Your task to perform on an android device: see creations saved in the google photos Image 0: 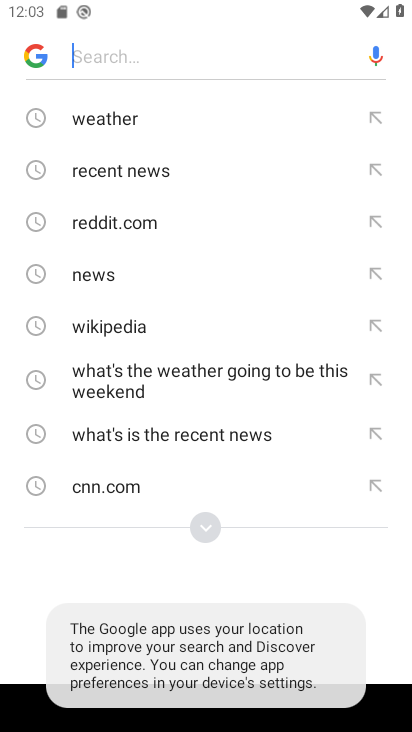
Step 0: press home button
Your task to perform on an android device: see creations saved in the google photos Image 1: 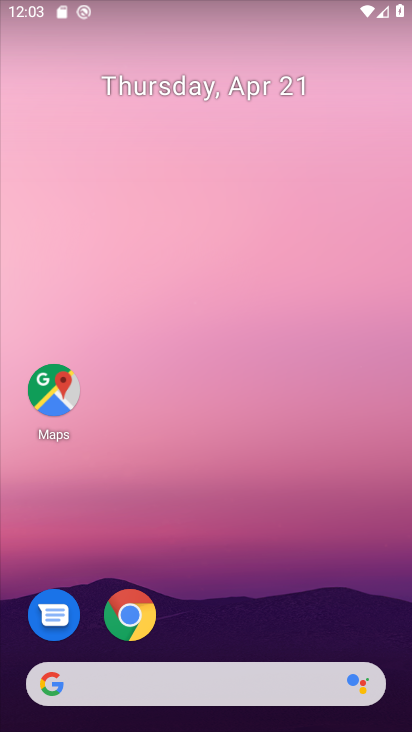
Step 1: drag from (374, 560) to (342, 96)
Your task to perform on an android device: see creations saved in the google photos Image 2: 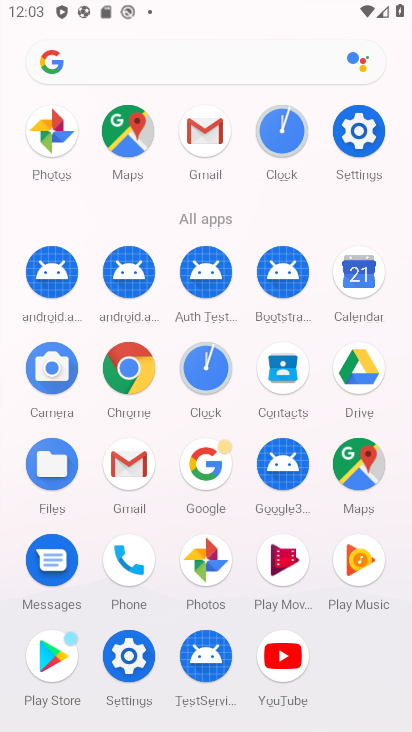
Step 2: click (191, 571)
Your task to perform on an android device: see creations saved in the google photos Image 3: 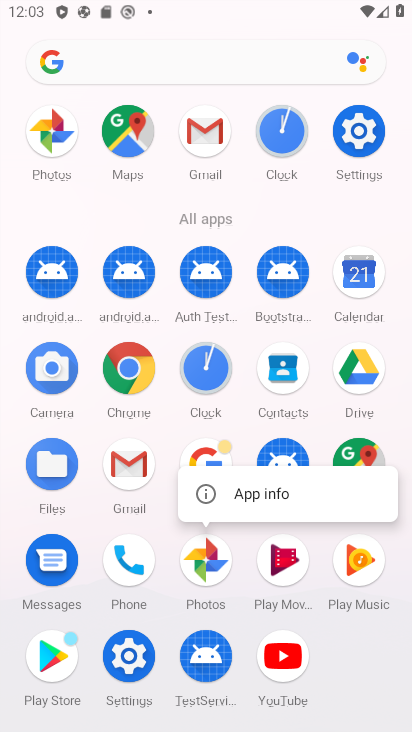
Step 3: click (215, 561)
Your task to perform on an android device: see creations saved in the google photos Image 4: 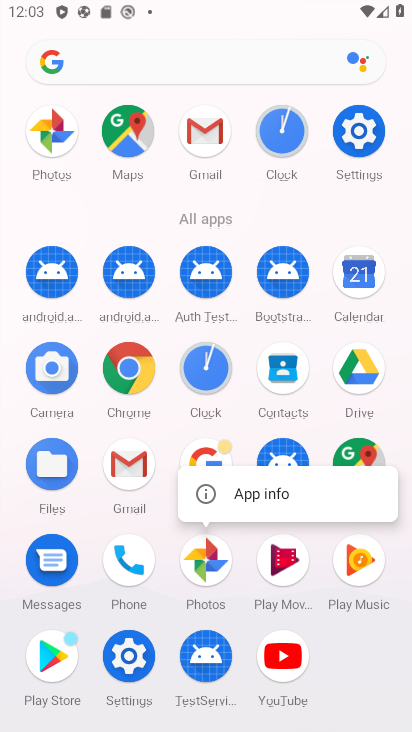
Step 4: click (215, 558)
Your task to perform on an android device: see creations saved in the google photos Image 5: 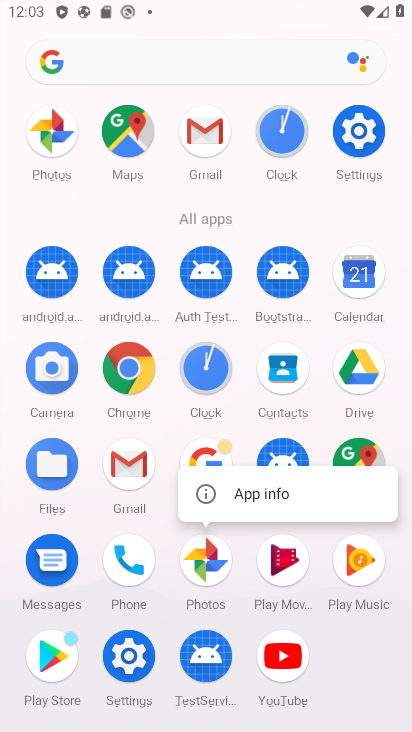
Step 5: click (215, 558)
Your task to perform on an android device: see creations saved in the google photos Image 6: 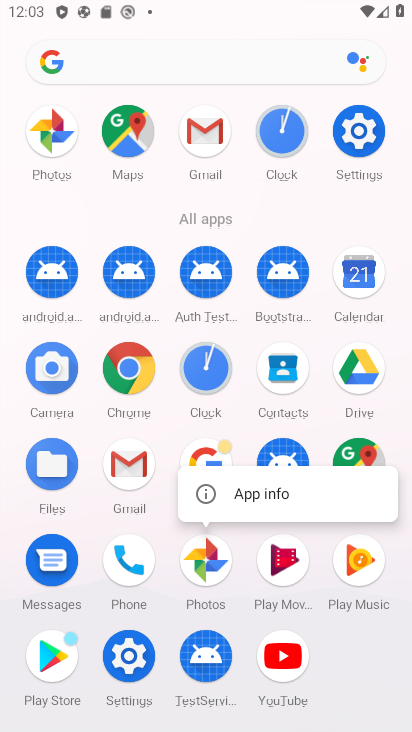
Step 6: click (206, 572)
Your task to perform on an android device: see creations saved in the google photos Image 7: 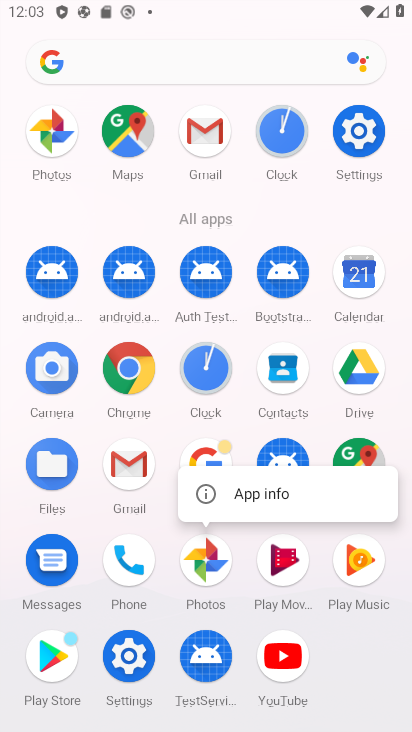
Step 7: click (211, 540)
Your task to perform on an android device: see creations saved in the google photos Image 8: 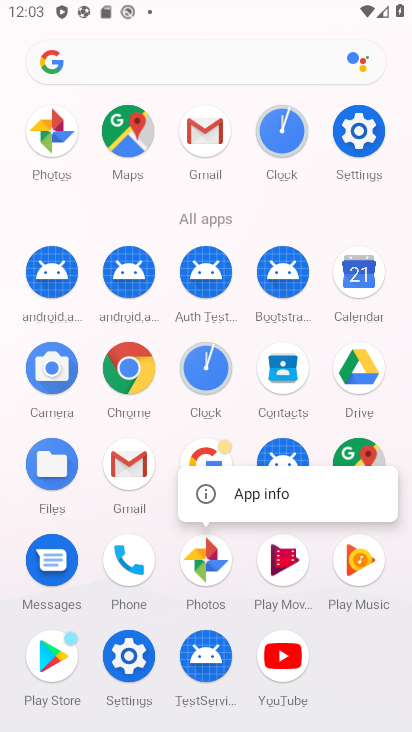
Step 8: click (199, 562)
Your task to perform on an android device: see creations saved in the google photos Image 9: 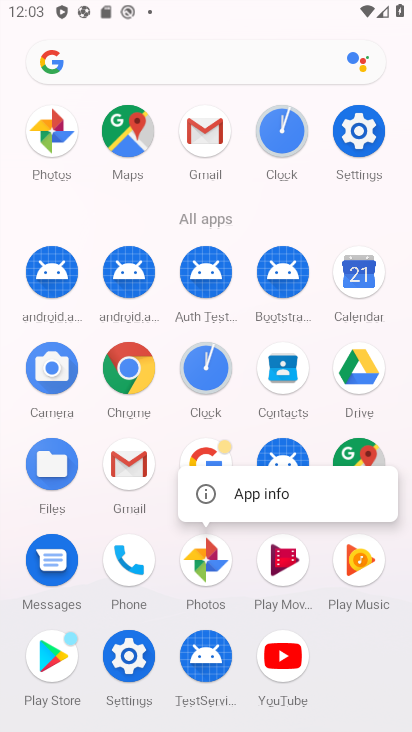
Step 9: click (205, 577)
Your task to perform on an android device: see creations saved in the google photos Image 10: 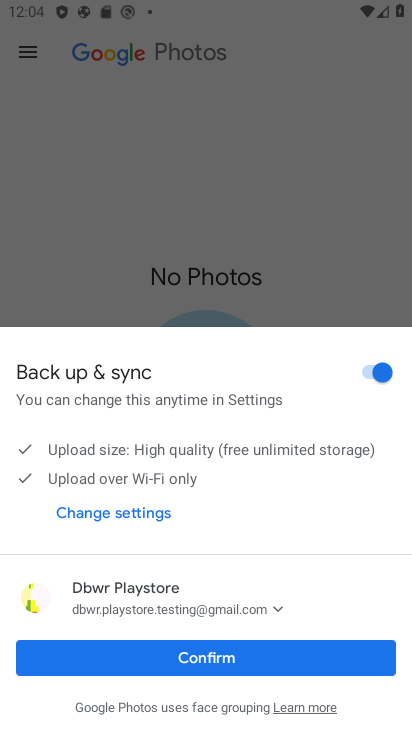
Step 10: click (197, 663)
Your task to perform on an android device: see creations saved in the google photos Image 11: 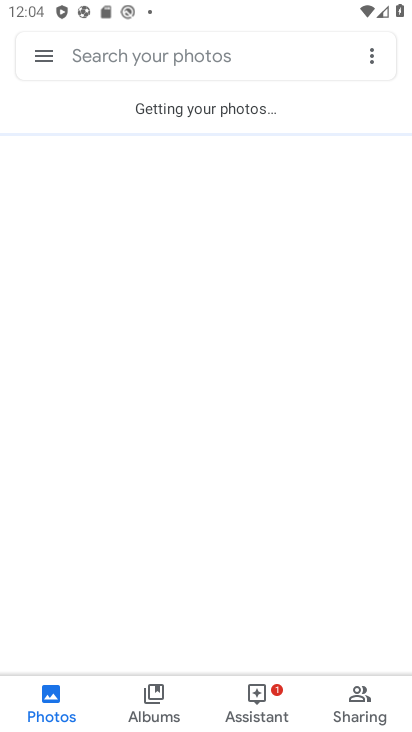
Step 11: click (123, 54)
Your task to perform on an android device: see creations saved in the google photos Image 12: 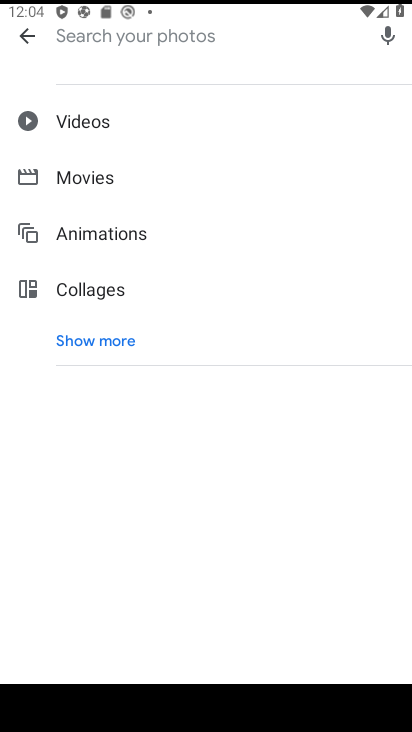
Step 12: type "creations"
Your task to perform on an android device: see creations saved in the google photos Image 13: 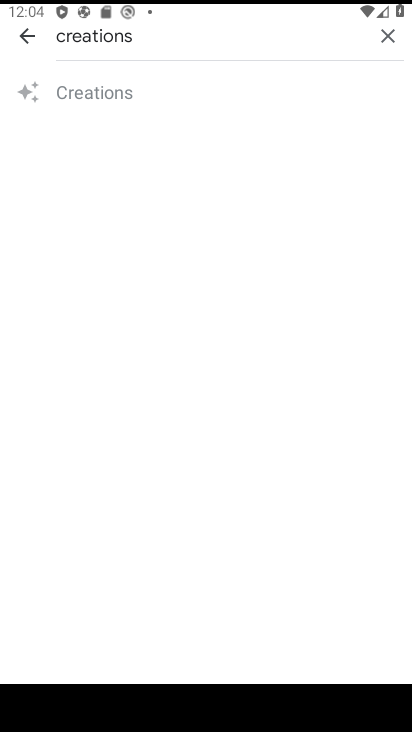
Step 13: click (54, 85)
Your task to perform on an android device: see creations saved in the google photos Image 14: 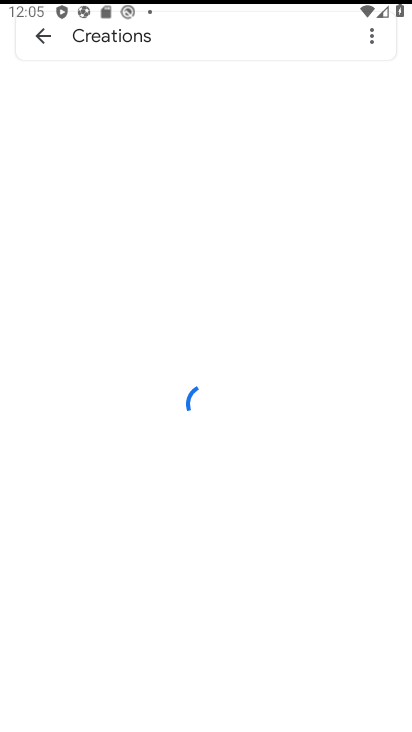
Step 14: task complete